Your task to perform on an android device: Open Yahoo.com Image 0: 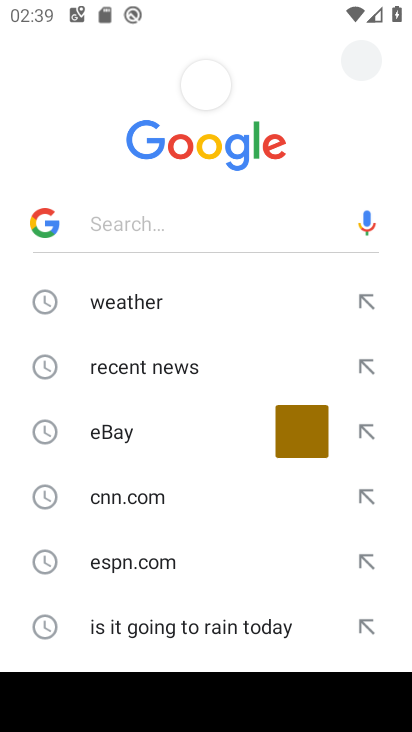
Step 0: press home button
Your task to perform on an android device: Open Yahoo.com Image 1: 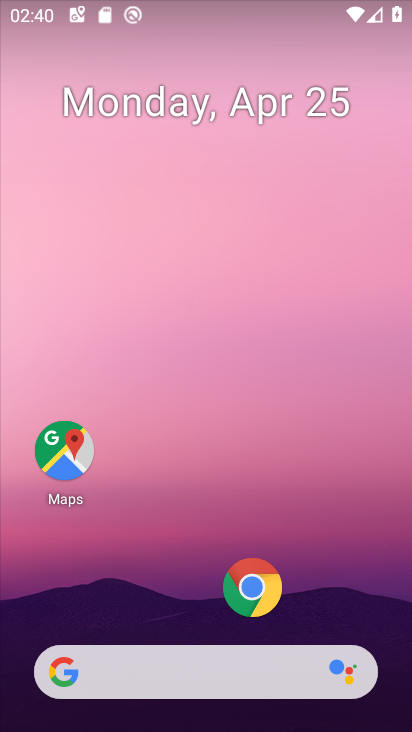
Step 1: click (248, 583)
Your task to perform on an android device: Open Yahoo.com Image 2: 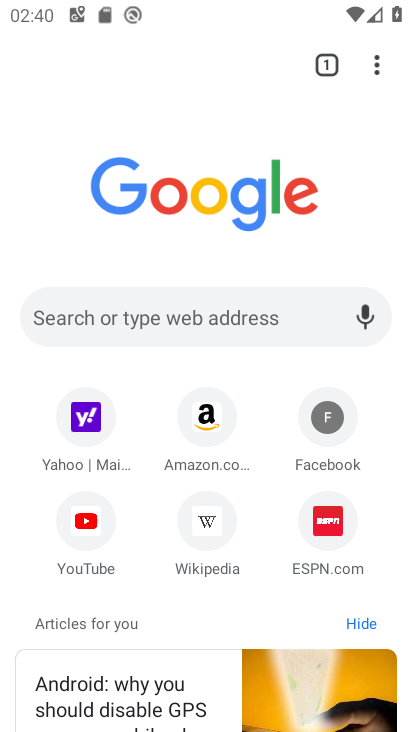
Step 2: click (84, 416)
Your task to perform on an android device: Open Yahoo.com Image 3: 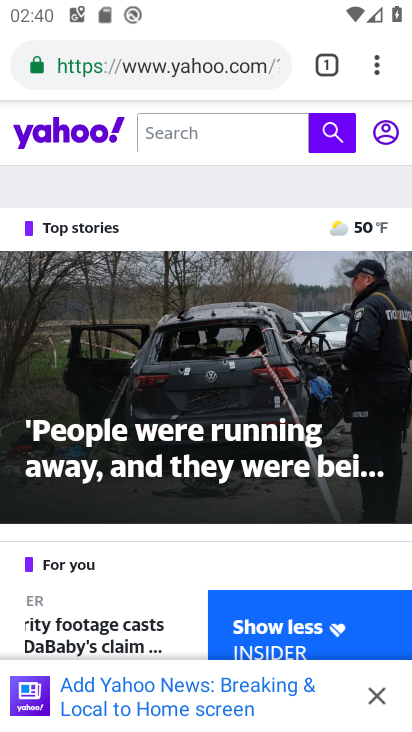
Step 3: task complete